Your task to perform on an android device: turn on the 12-hour format for clock Image 0: 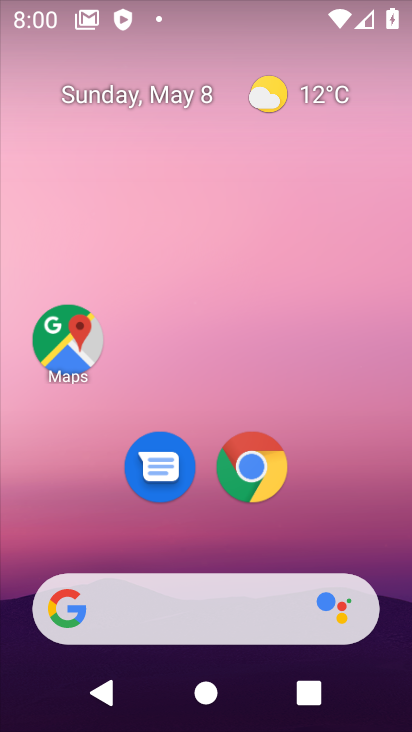
Step 0: drag from (201, 557) to (253, 146)
Your task to perform on an android device: turn on the 12-hour format for clock Image 1: 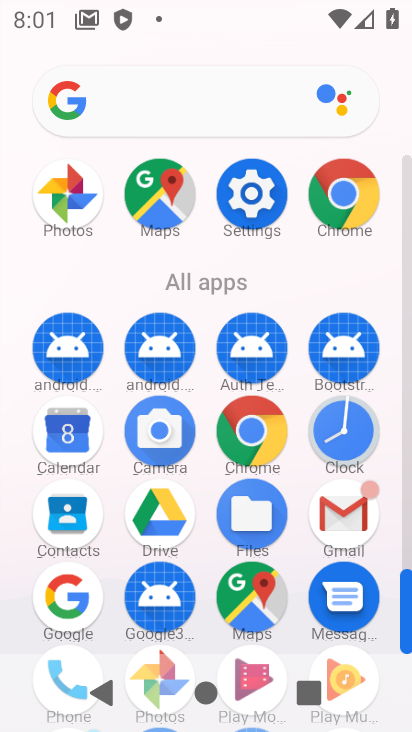
Step 1: click (341, 420)
Your task to perform on an android device: turn on the 12-hour format for clock Image 2: 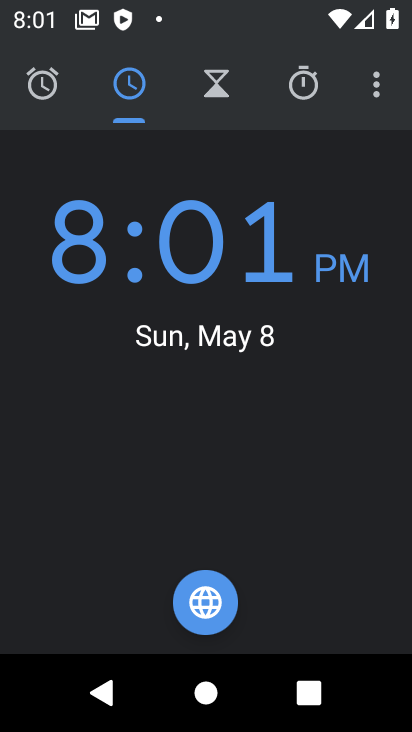
Step 2: click (384, 89)
Your task to perform on an android device: turn on the 12-hour format for clock Image 3: 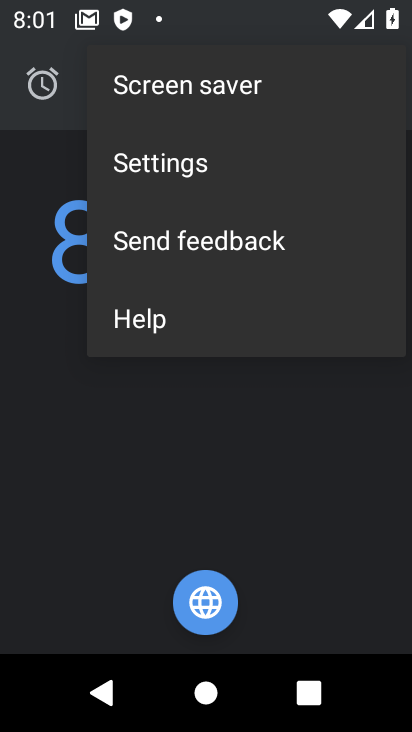
Step 3: click (169, 168)
Your task to perform on an android device: turn on the 12-hour format for clock Image 4: 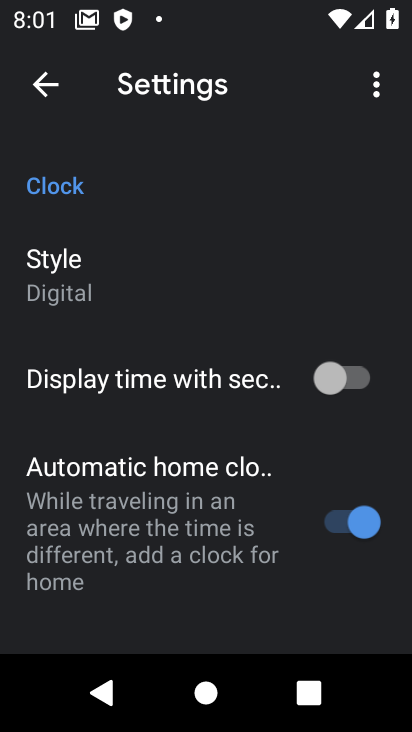
Step 4: drag from (228, 632) to (379, 79)
Your task to perform on an android device: turn on the 12-hour format for clock Image 5: 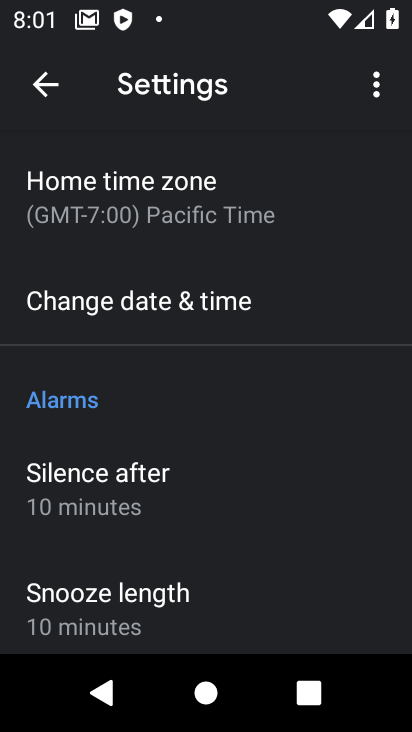
Step 5: click (134, 302)
Your task to perform on an android device: turn on the 12-hour format for clock Image 6: 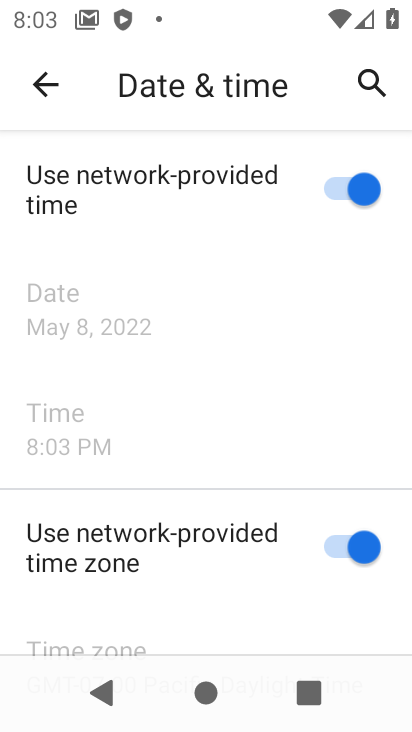
Step 6: task complete